Your task to perform on an android device: Go to location settings Image 0: 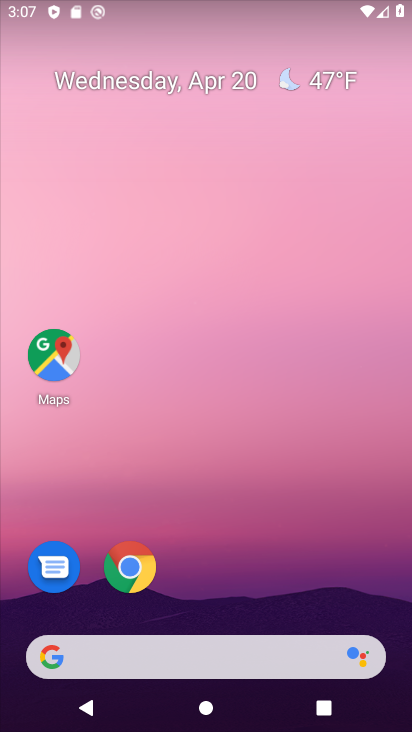
Step 0: drag from (353, 582) to (314, 40)
Your task to perform on an android device: Go to location settings Image 1: 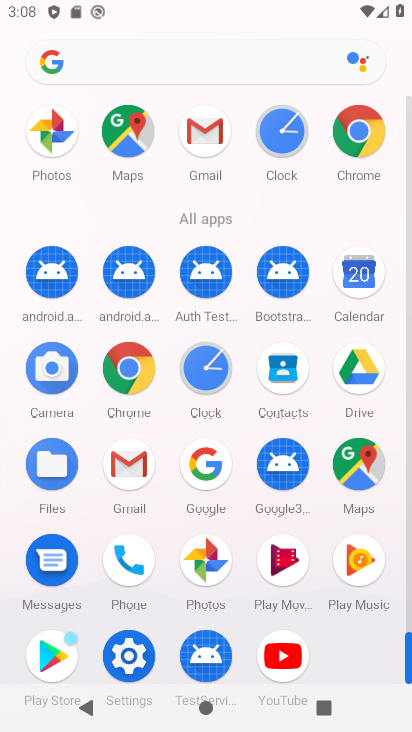
Step 1: click (127, 656)
Your task to perform on an android device: Go to location settings Image 2: 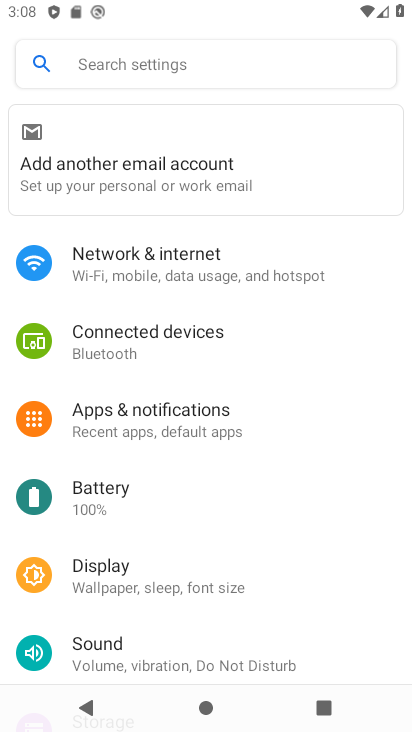
Step 2: drag from (266, 575) to (274, 193)
Your task to perform on an android device: Go to location settings Image 3: 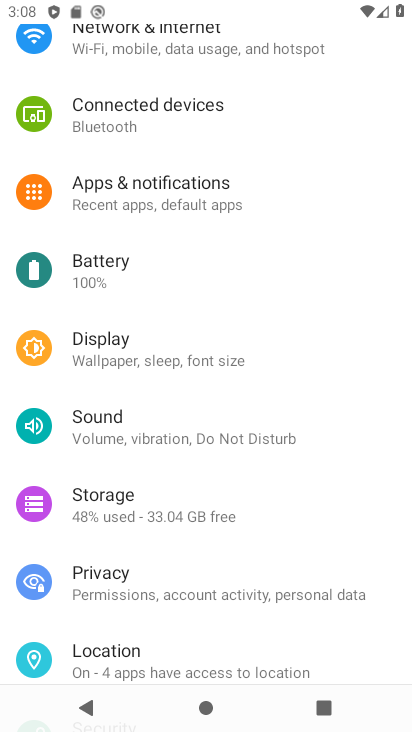
Step 3: click (131, 648)
Your task to perform on an android device: Go to location settings Image 4: 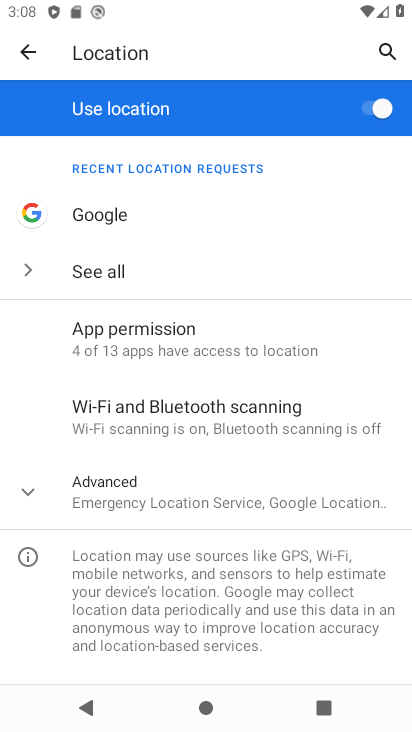
Step 4: click (204, 491)
Your task to perform on an android device: Go to location settings Image 5: 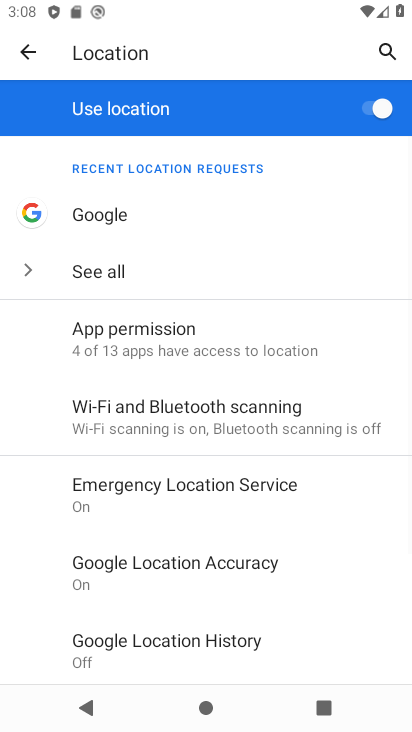
Step 5: task complete